Your task to perform on an android device: move a message to another label in the gmail app Image 0: 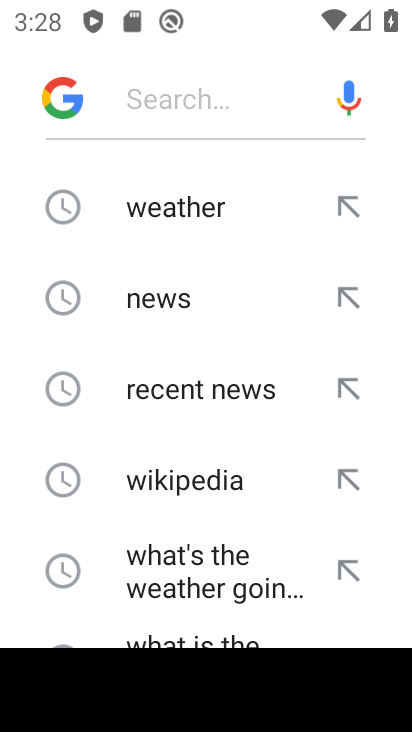
Step 0: press home button
Your task to perform on an android device: move a message to another label in the gmail app Image 1: 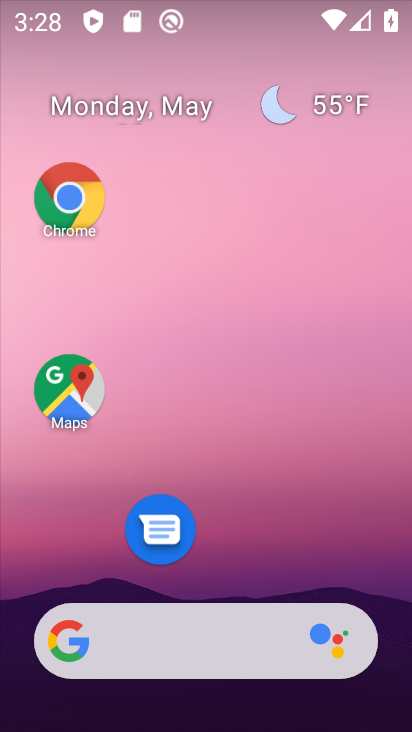
Step 1: drag from (221, 673) to (216, 74)
Your task to perform on an android device: move a message to another label in the gmail app Image 2: 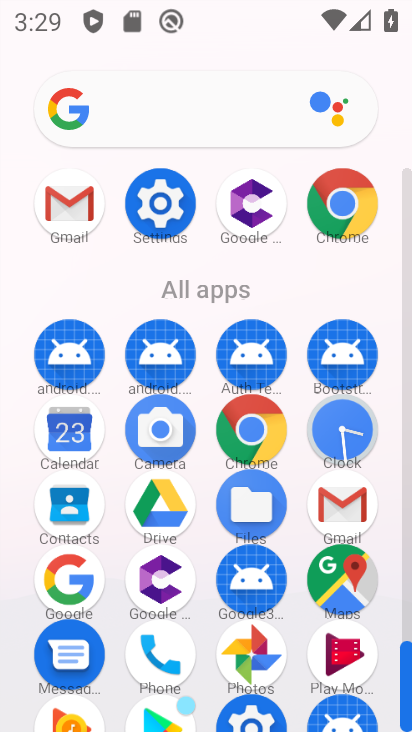
Step 2: click (336, 527)
Your task to perform on an android device: move a message to another label in the gmail app Image 3: 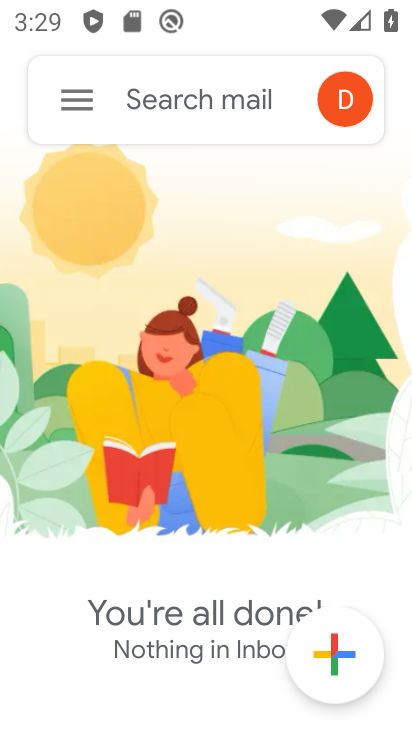
Step 3: click (71, 101)
Your task to perform on an android device: move a message to another label in the gmail app Image 4: 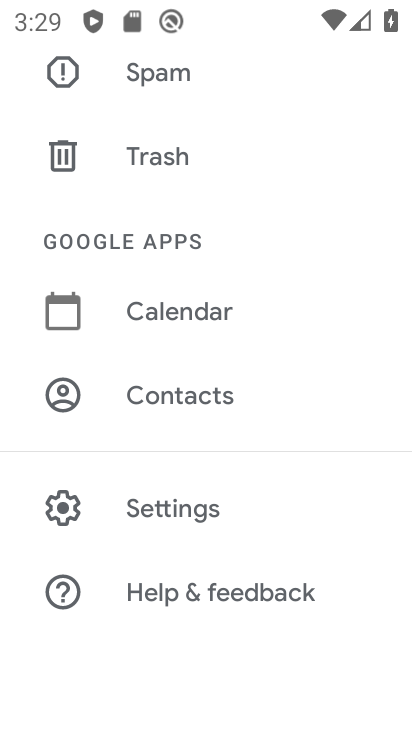
Step 4: drag from (182, 201) to (220, 602)
Your task to perform on an android device: move a message to another label in the gmail app Image 5: 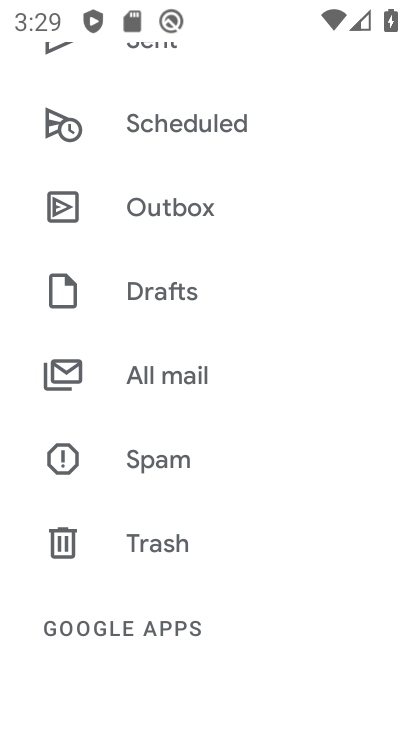
Step 5: click (188, 387)
Your task to perform on an android device: move a message to another label in the gmail app Image 6: 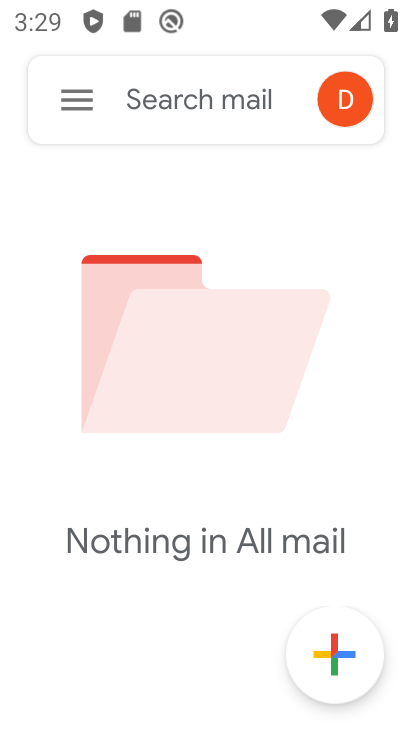
Step 6: task complete